Your task to perform on an android device: set the timer Image 0: 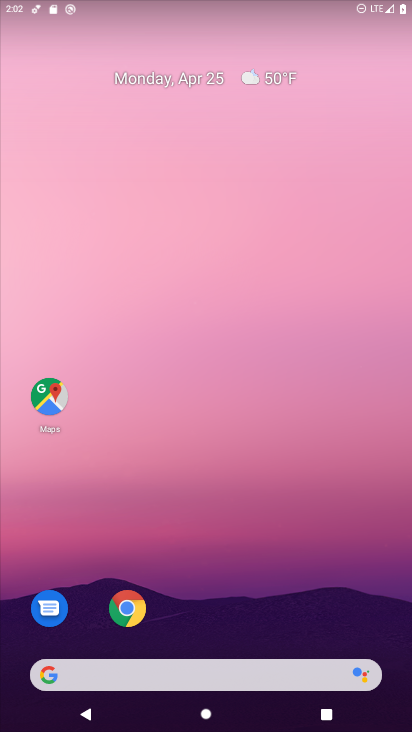
Step 0: drag from (355, 607) to (269, 95)
Your task to perform on an android device: set the timer Image 1: 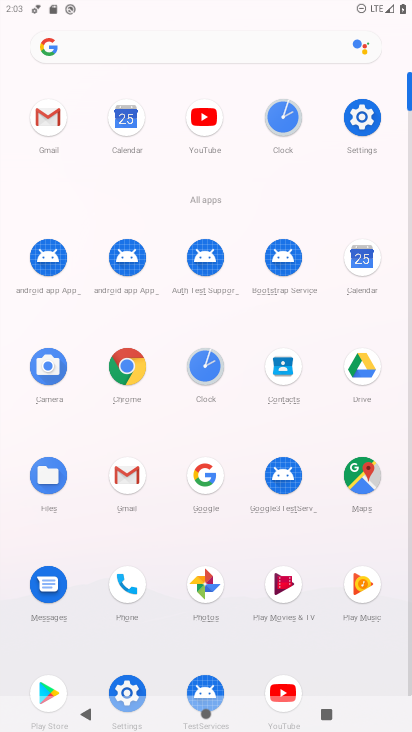
Step 1: click (285, 127)
Your task to perform on an android device: set the timer Image 2: 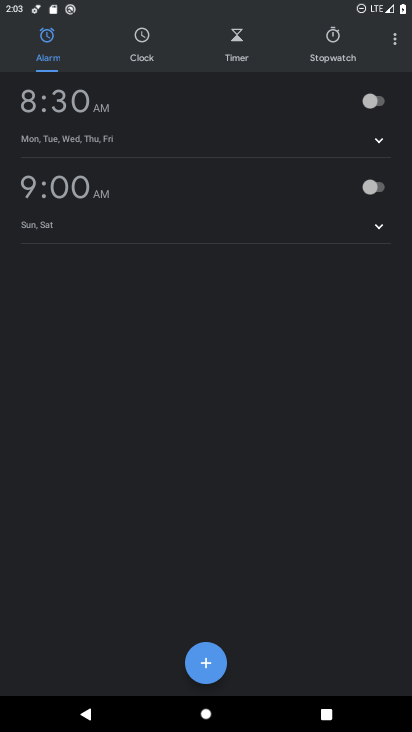
Step 2: click (399, 42)
Your task to perform on an android device: set the timer Image 3: 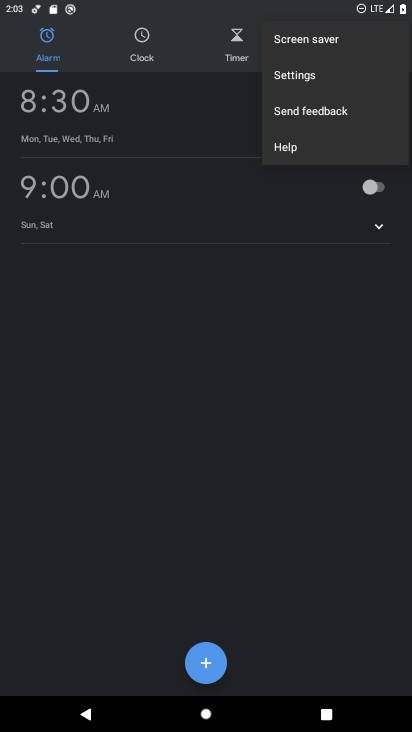
Step 3: click (348, 72)
Your task to perform on an android device: set the timer Image 4: 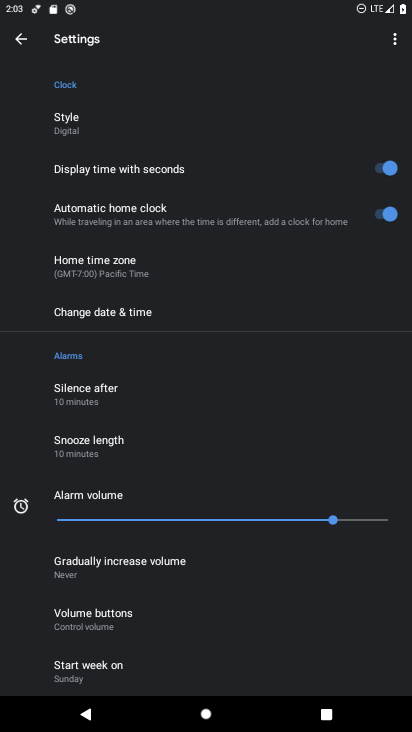
Step 4: click (187, 274)
Your task to perform on an android device: set the timer Image 5: 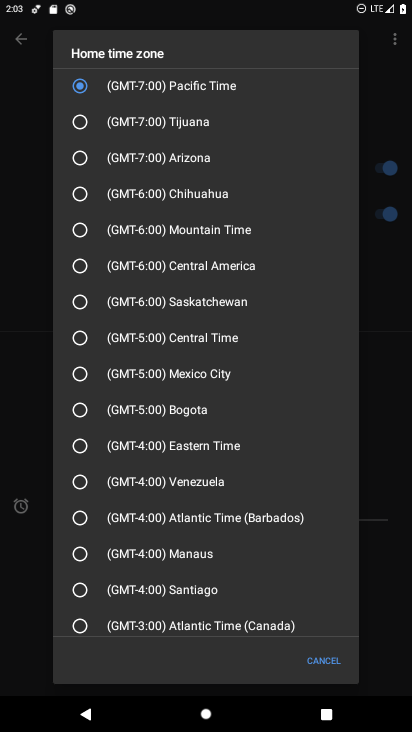
Step 5: click (172, 333)
Your task to perform on an android device: set the timer Image 6: 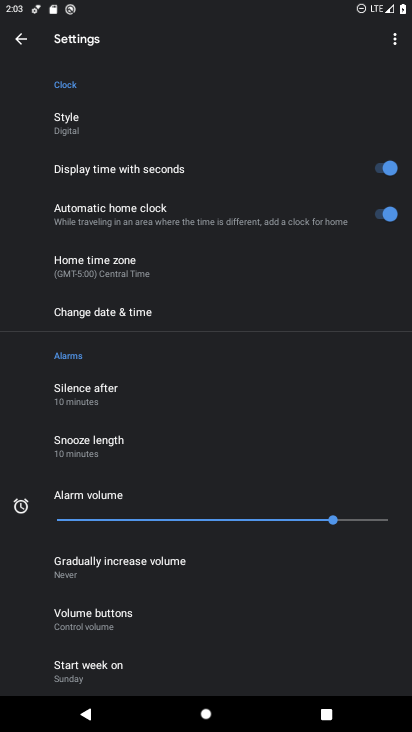
Step 6: task complete